Your task to perform on an android device: Go to Maps Image 0: 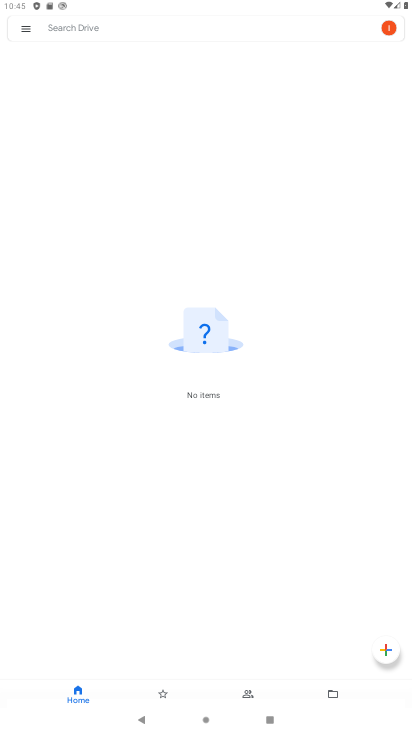
Step 0: press home button
Your task to perform on an android device: Go to Maps Image 1: 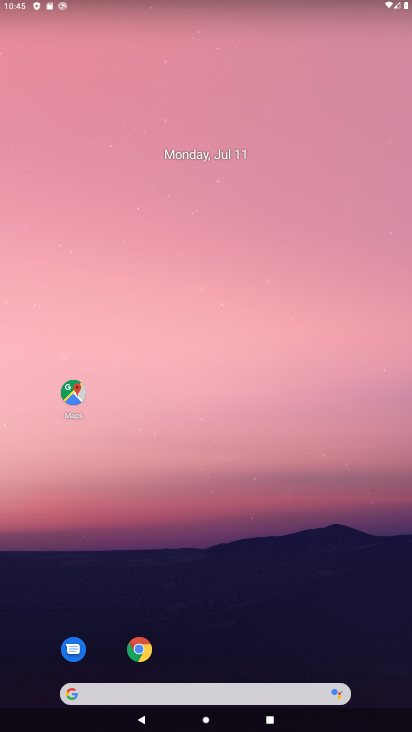
Step 1: click (73, 394)
Your task to perform on an android device: Go to Maps Image 2: 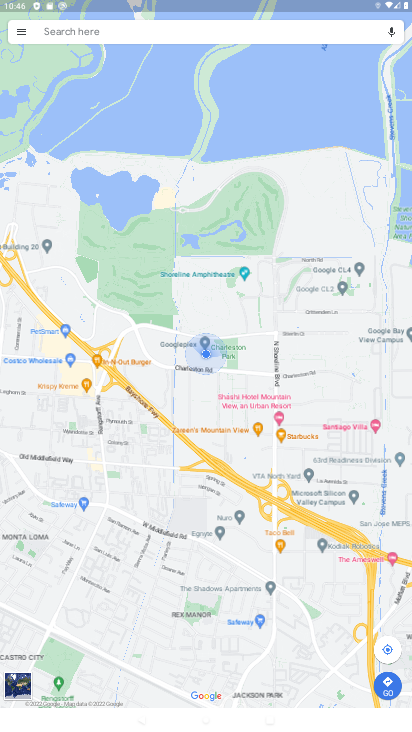
Step 2: task complete